Your task to perform on an android device: Open Amazon Image 0: 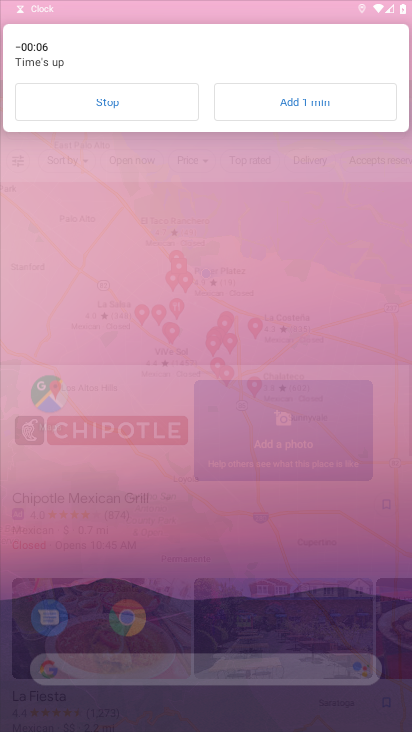
Step 0: click (163, 117)
Your task to perform on an android device: Open Amazon Image 1: 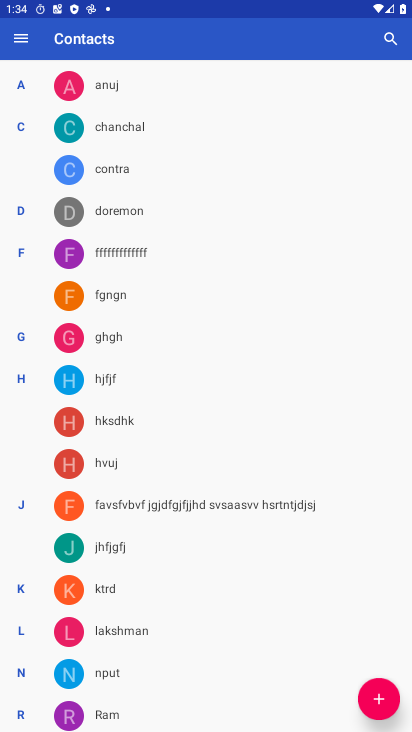
Step 1: press home button
Your task to perform on an android device: Open Amazon Image 2: 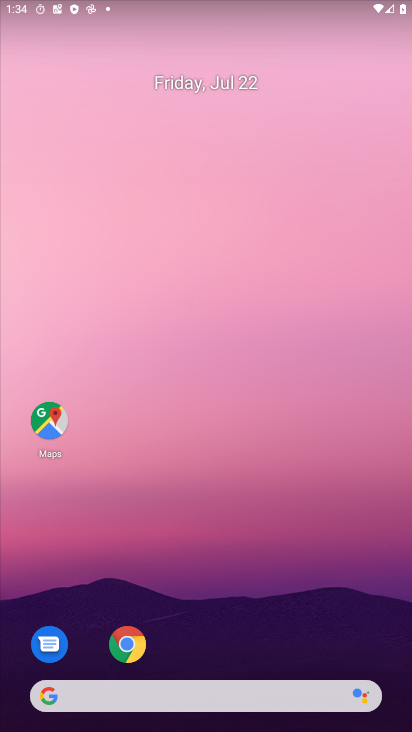
Step 2: drag from (221, 677) to (152, 232)
Your task to perform on an android device: Open Amazon Image 3: 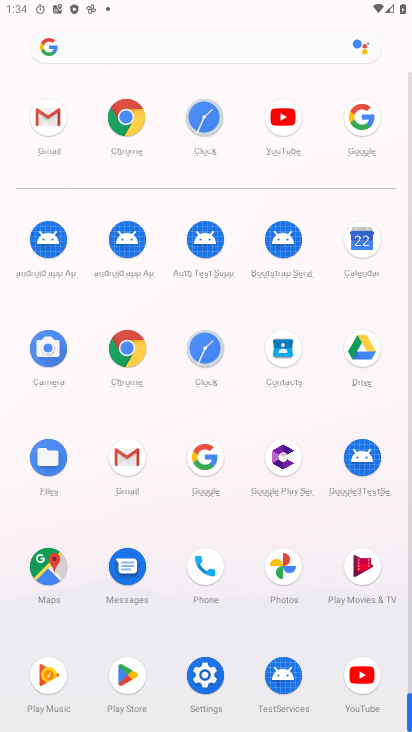
Step 3: click (125, 142)
Your task to perform on an android device: Open Amazon Image 4: 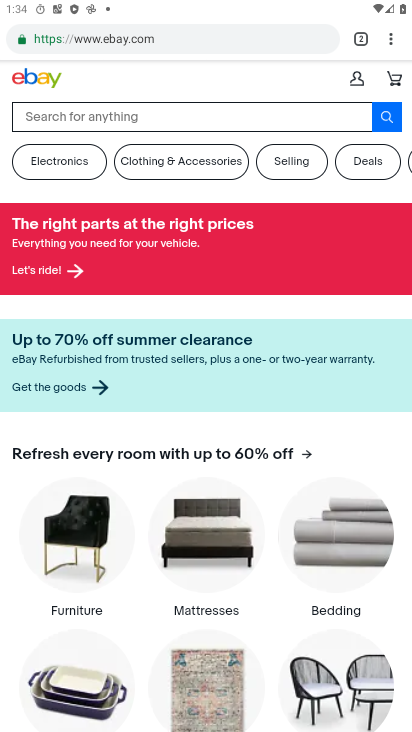
Step 4: click (214, 48)
Your task to perform on an android device: Open Amazon Image 5: 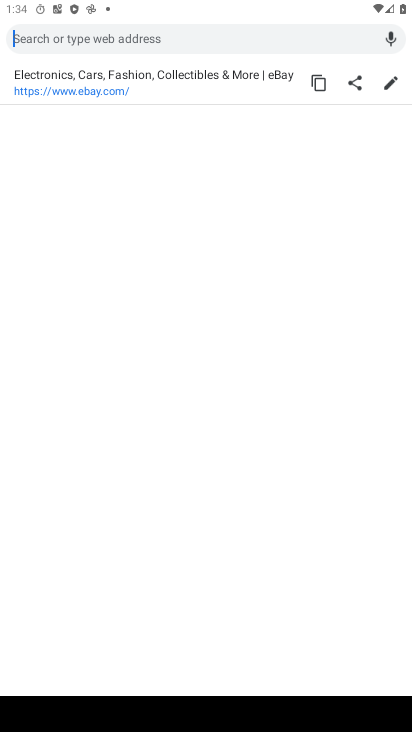
Step 5: type "amazon"
Your task to perform on an android device: Open Amazon Image 6: 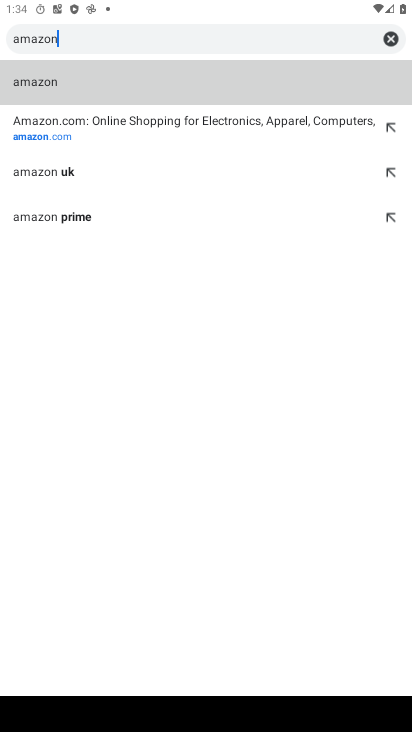
Step 6: click (215, 121)
Your task to perform on an android device: Open Amazon Image 7: 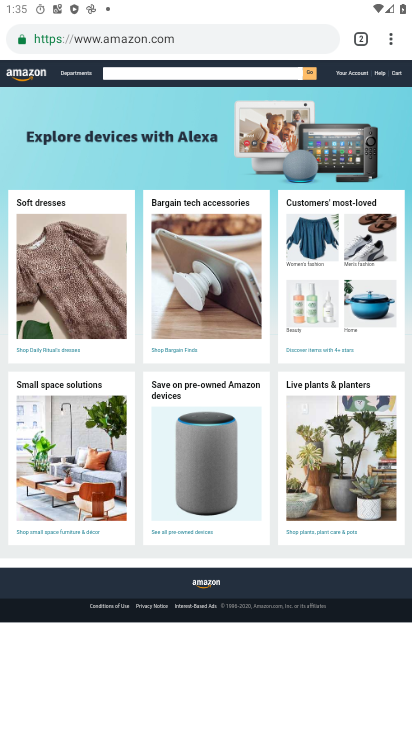
Step 7: task complete